Your task to perform on an android device: open chrome and create a bookmark for the current page Image 0: 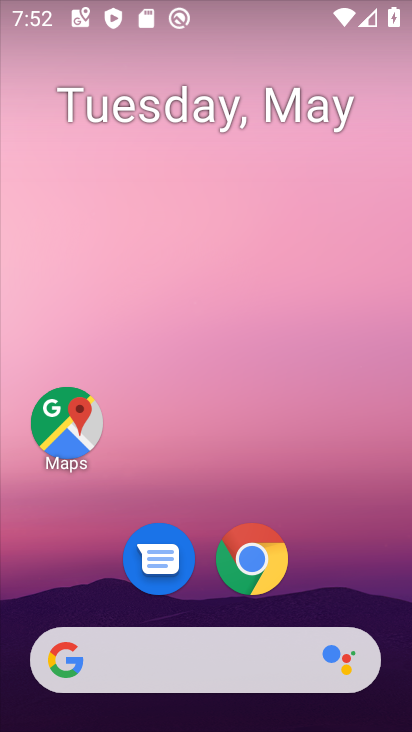
Step 0: drag from (348, 550) to (365, 117)
Your task to perform on an android device: open chrome and create a bookmark for the current page Image 1: 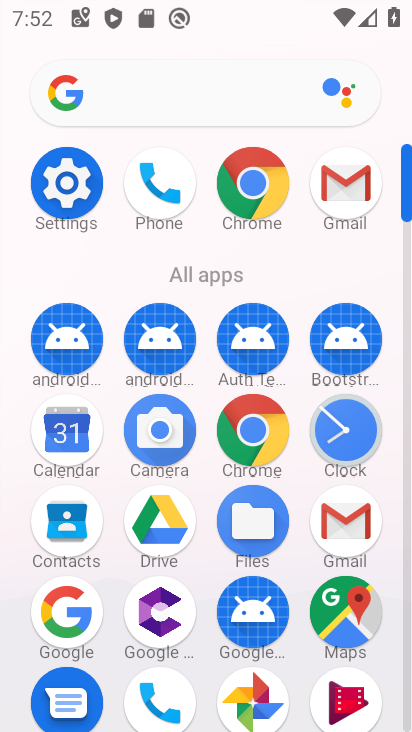
Step 1: click (234, 209)
Your task to perform on an android device: open chrome and create a bookmark for the current page Image 2: 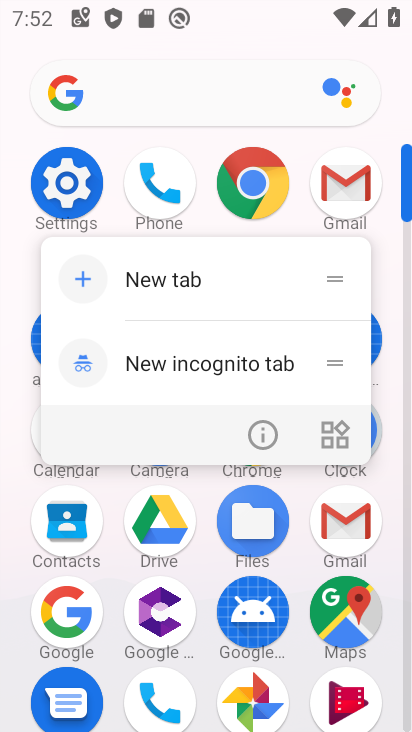
Step 2: click (234, 209)
Your task to perform on an android device: open chrome and create a bookmark for the current page Image 3: 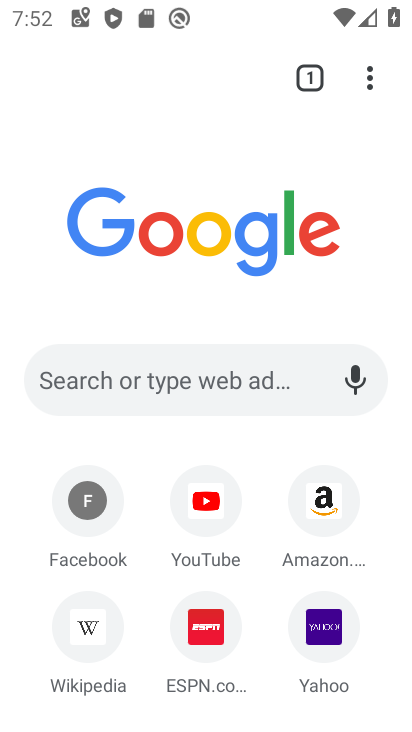
Step 3: task complete